Your task to perform on an android device: Open the calendar and show me this week's events? Image 0: 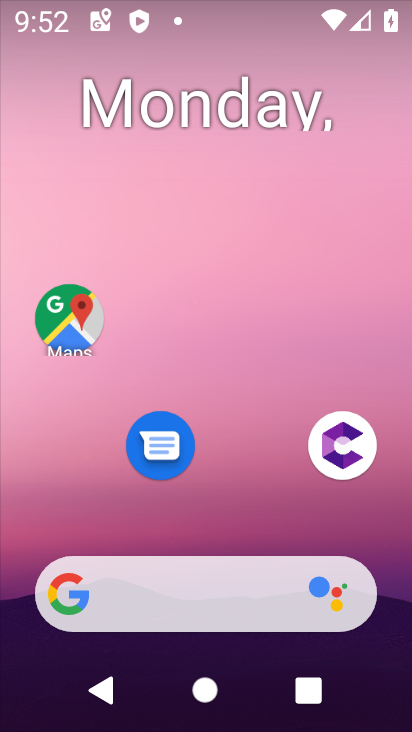
Step 0: press home button
Your task to perform on an android device: Open the calendar and show me this week's events? Image 1: 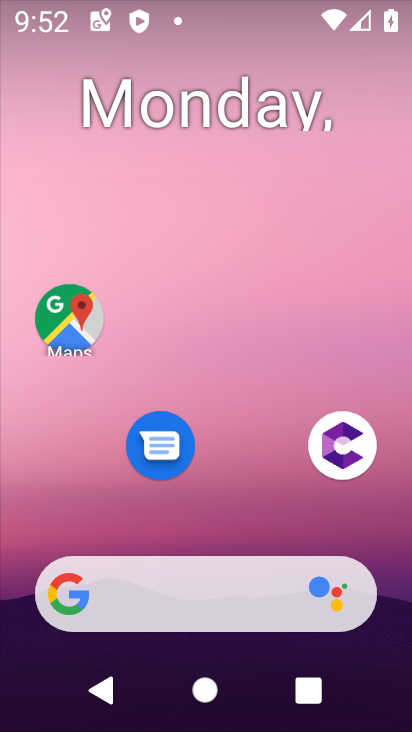
Step 1: drag from (228, 484) to (240, 0)
Your task to perform on an android device: Open the calendar and show me this week's events? Image 2: 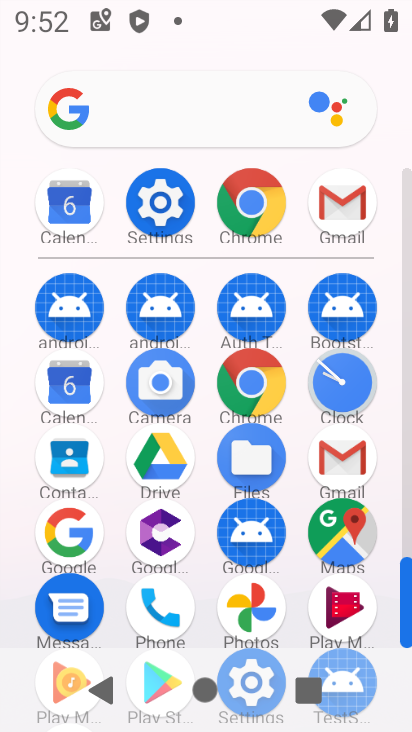
Step 2: click (68, 387)
Your task to perform on an android device: Open the calendar and show me this week's events? Image 3: 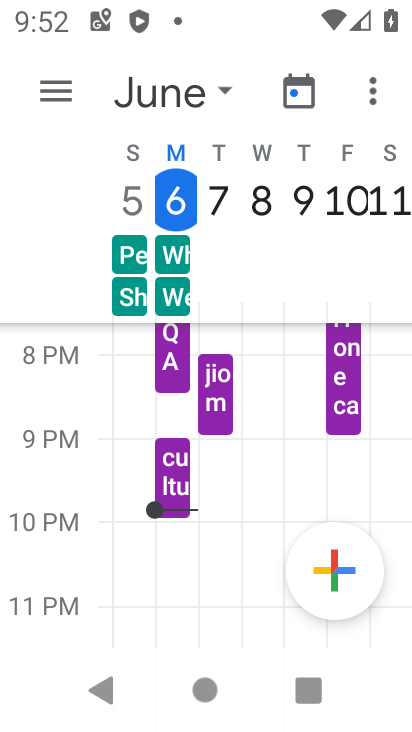
Step 3: task complete